Your task to perform on an android device: Do I have any events tomorrow? Image 0: 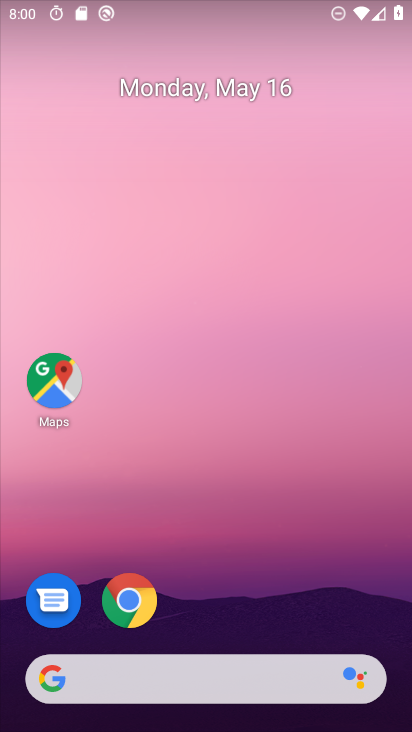
Step 0: drag from (168, 641) to (279, 224)
Your task to perform on an android device: Do I have any events tomorrow? Image 1: 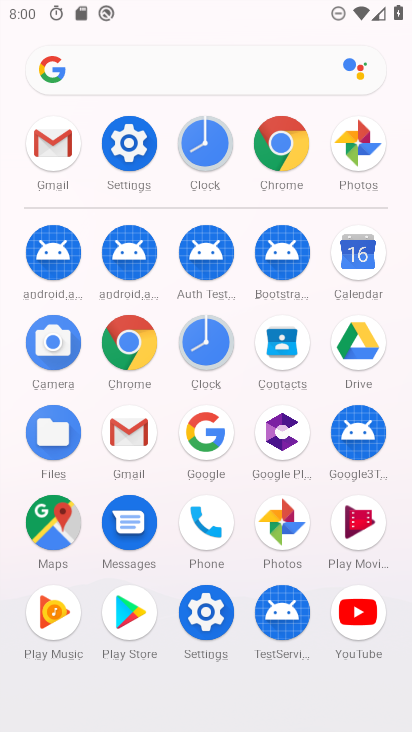
Step 1: click (366, 273)
Your task to perform on an android device: Do I have any events tomorrow? Image 2: 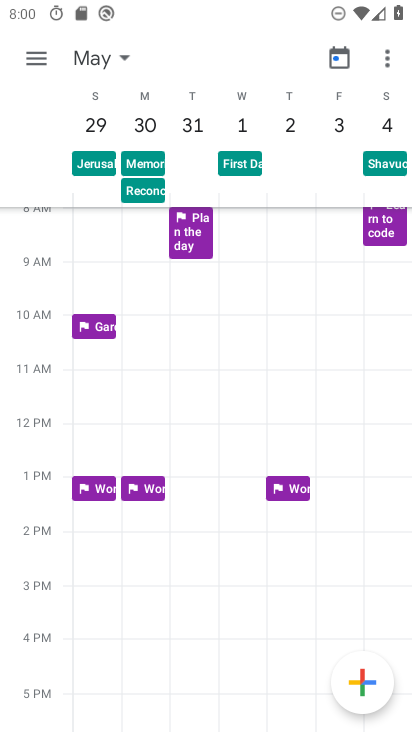
Step 2: click (98, 53)
Your task to perform on an android device: Do I have any events tomorrow? Image 3: 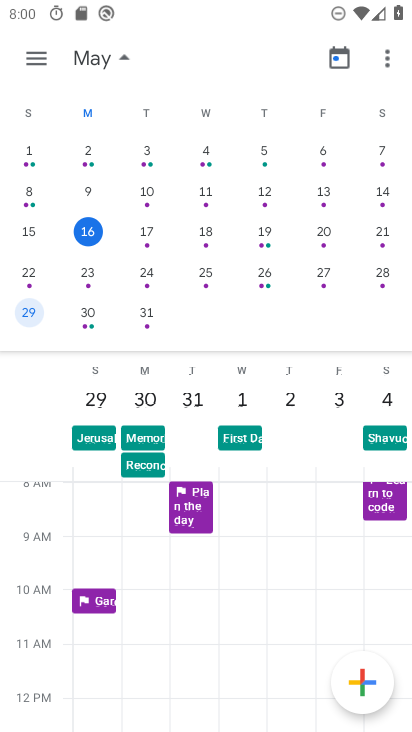
Step 3: click (147, 226)
Your task to perform on an android device: Do I have any events tomorrow? Image 4: 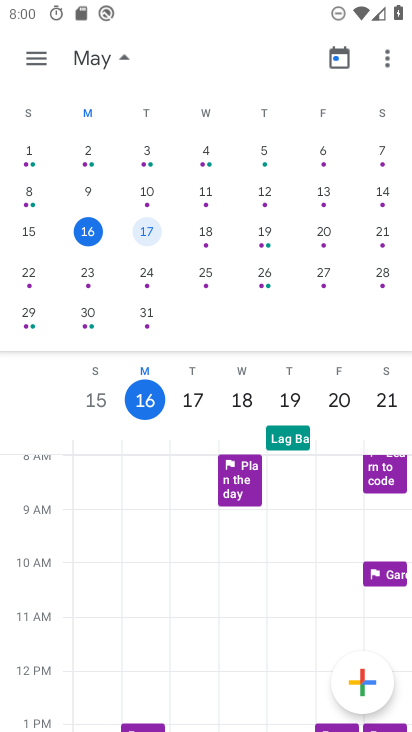
Step 4: click (155, 235)
Your task to perform on an android device: Do I have any events tomorrow? Image 5: 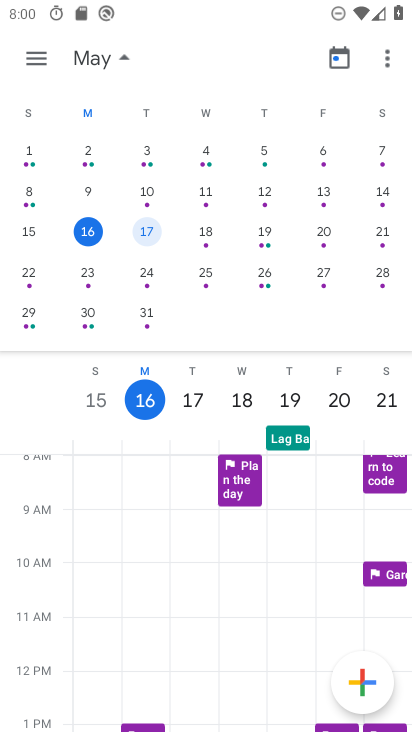
Step 5: click (42, 55)
Your task to perform on an android device: Do I have any events tomorrow? Image 6: 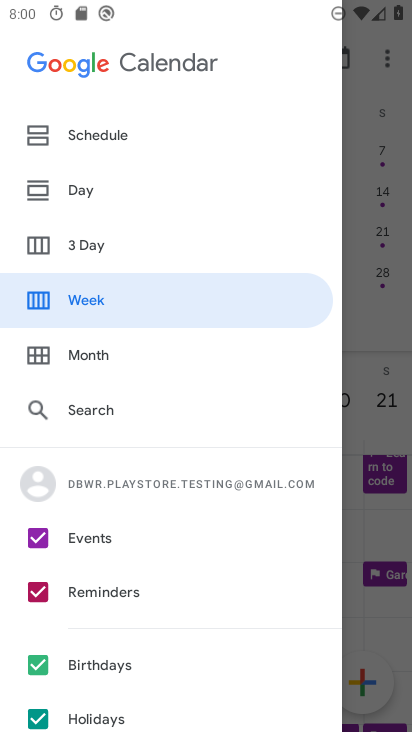
Step 6: click (85, 190)
Your task to perform on an android device: Do I have any events tomorrow? Image 7: 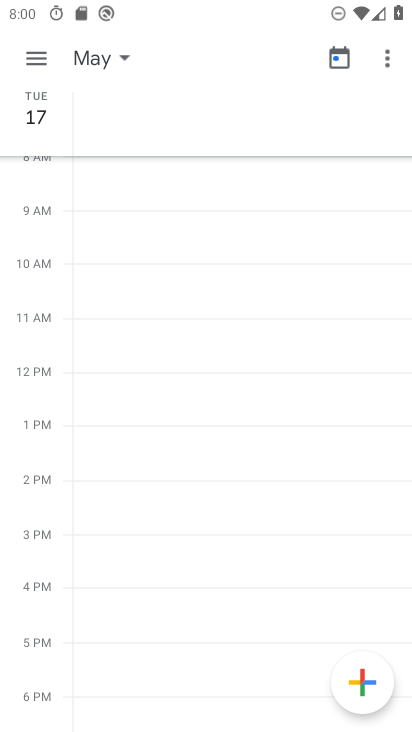
Step 7: click (25, 54)
Your task to perform on an android device: Do I have any events tomorrow? Image 8: 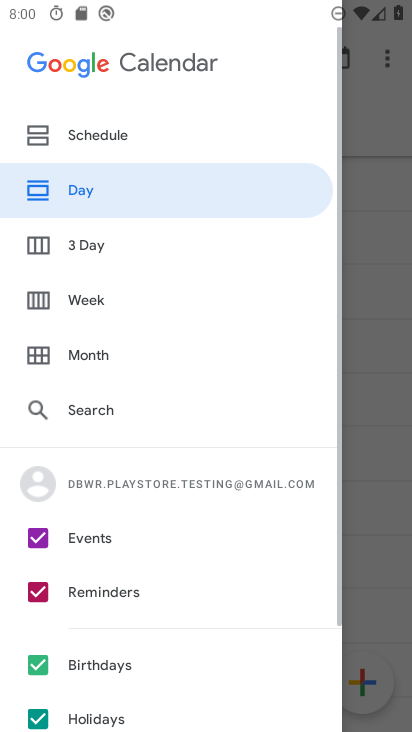
Step 8: click (87, 135)
Your task to perform on an android device: Do I have any events tomorrow? Image 9: 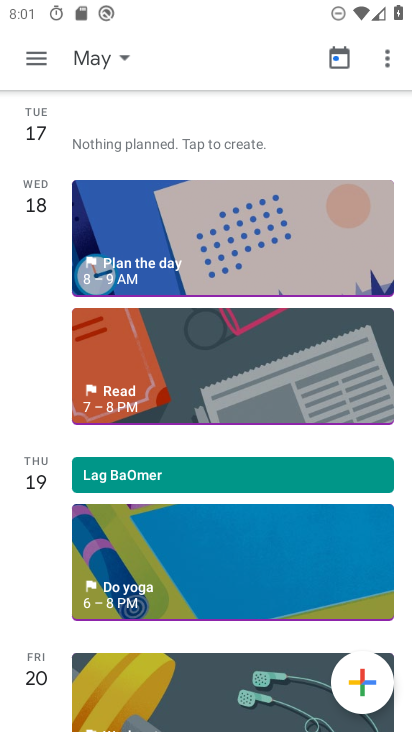
Step 9: task complete